Your task to perform on an android device: turn on notifications settings in the gmail app Image 0: 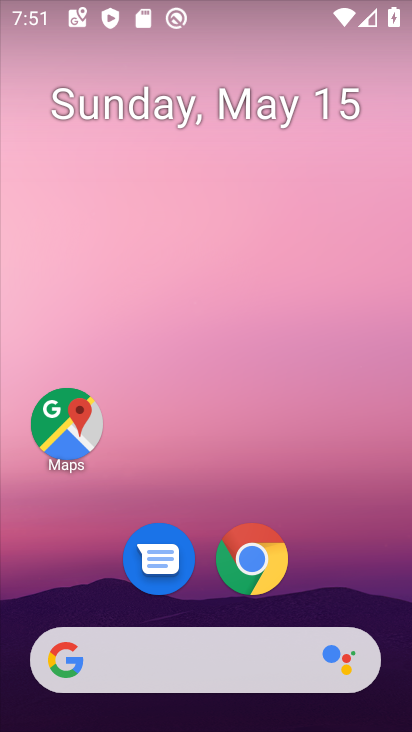
Step 0: drag from (318, 595) to (316, 42)
Your task to perform on an android device: turn on notifications settings in the gmail app Image 1: 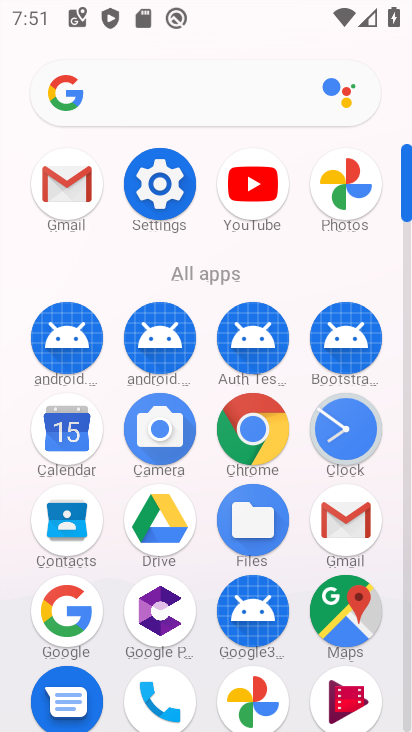
Step 1: click (142, 189)
Your task to perform on an android device: turn on notifications settings in the gmail app Image 2: 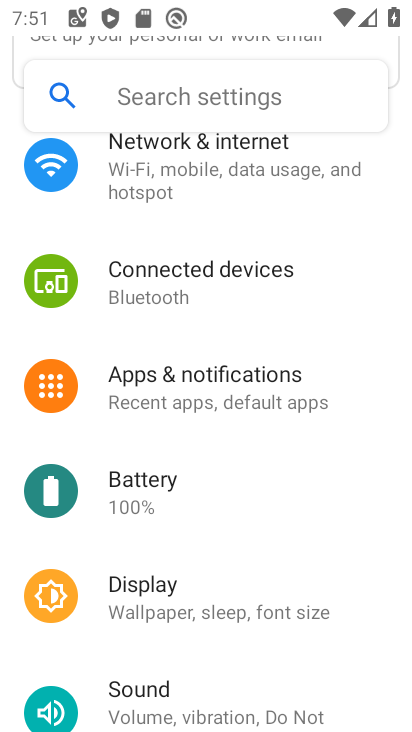
Step 2: press home button
Your task to perform on an android device: turn on notifications settings in the gmail app Image 3: 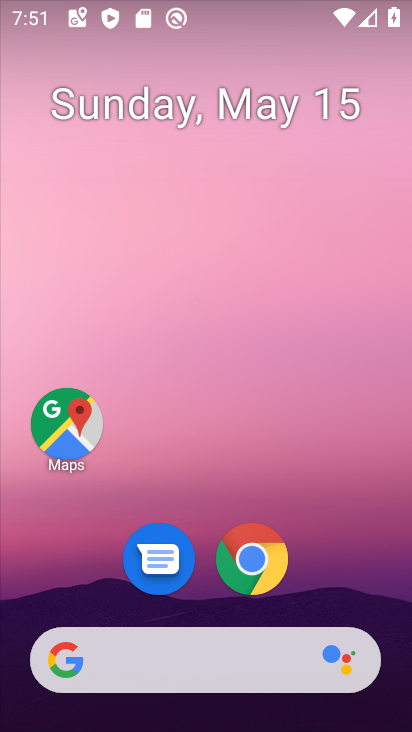
Step 3: drag from (350, 532) to (380, 183)
Your task to perform on an android device: turn on notifications settings in the gmail app Image 4: 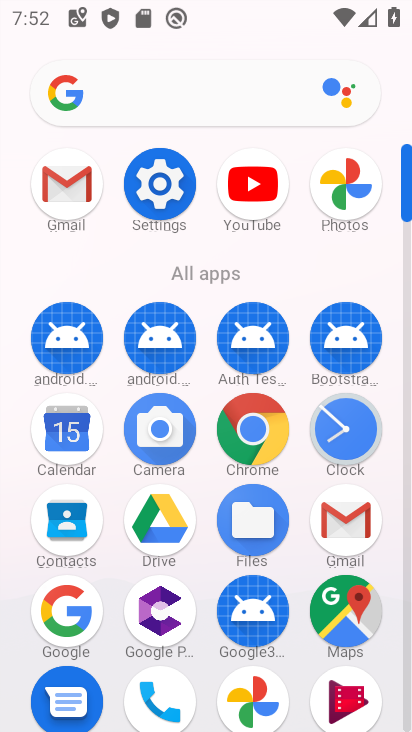
Step 4: click (48, 210)
Your task to perform on an android device: turn on notifications settings in the gmail app Image 5: 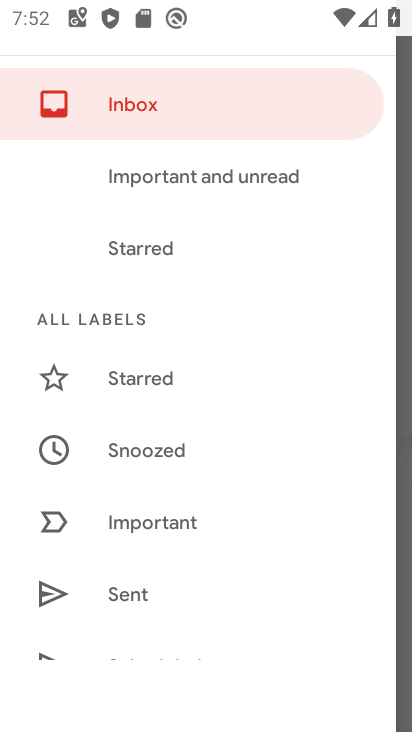
Step 5: drag from (102, 616) to (148, 182)
Your task to perform on an android device: turn on notifications settings in the gmail app Image 6: 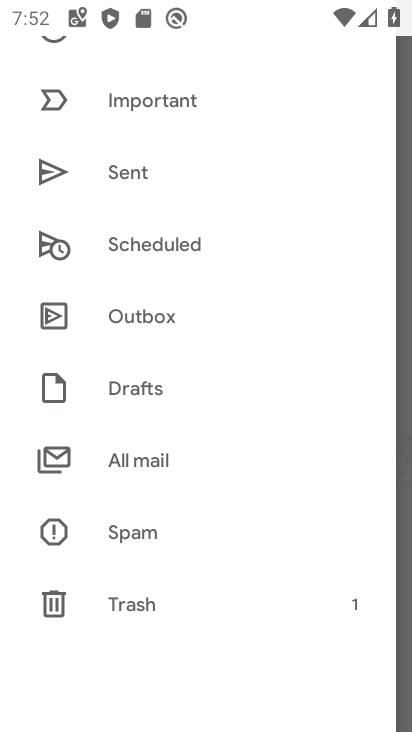
Step 6: drag from (154, 634) to (244, 314)
Your task to perform on an android device: turn on notifications settings in the gmail app Image 7: 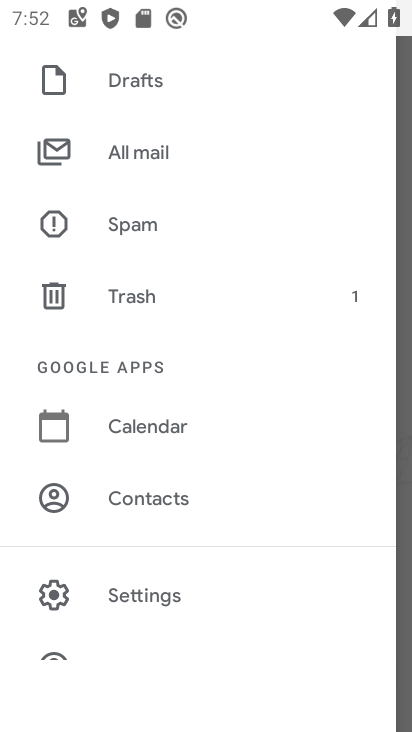
Step 7: click (211, 585)
Your task to perform on an android device: turn on notifications settings in the gmail app Image 8: 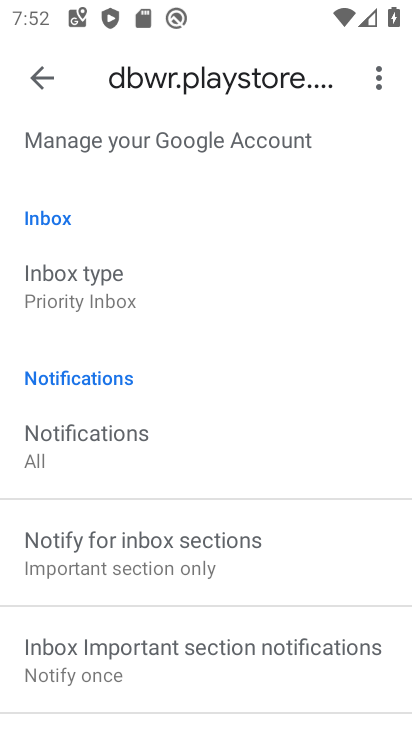
Step 8: click (111, 448)
Your task to perform on an android device: turn on notifications settings in the gmail app Image 9: 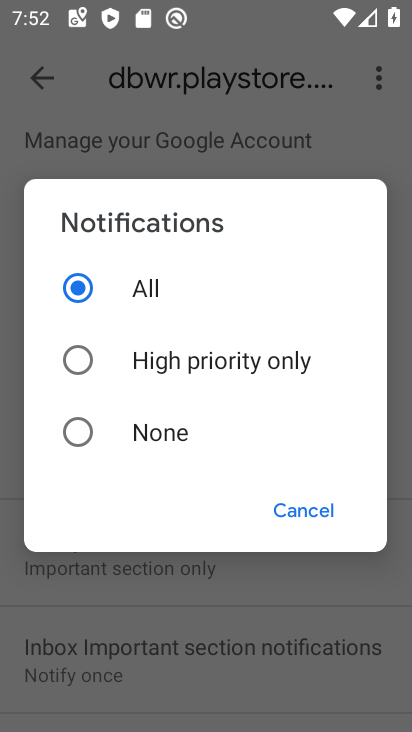
Step 9: click (130, 347)
Your task to perform on an android device: turn on notifications settings in the gmail app Image 10: 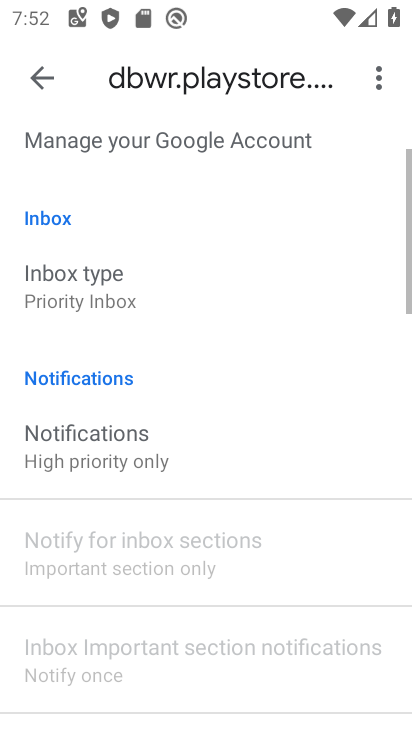
Step 10: task complete